Your task to perform on an android device: turn on airplane mode Image 0: 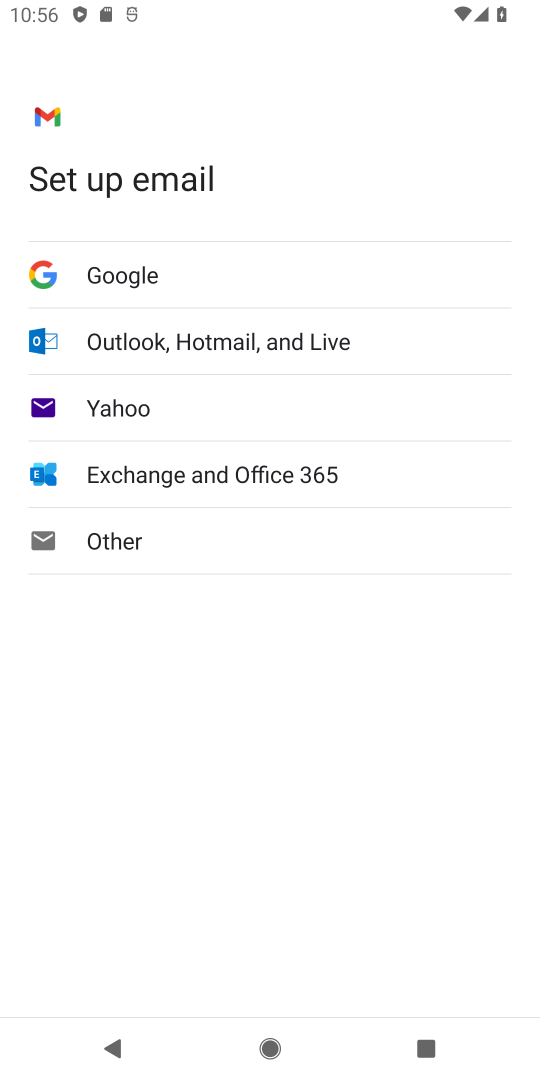
Step 0: press home button
Your task to perform on an android device: turn on airplane mode Image 1: 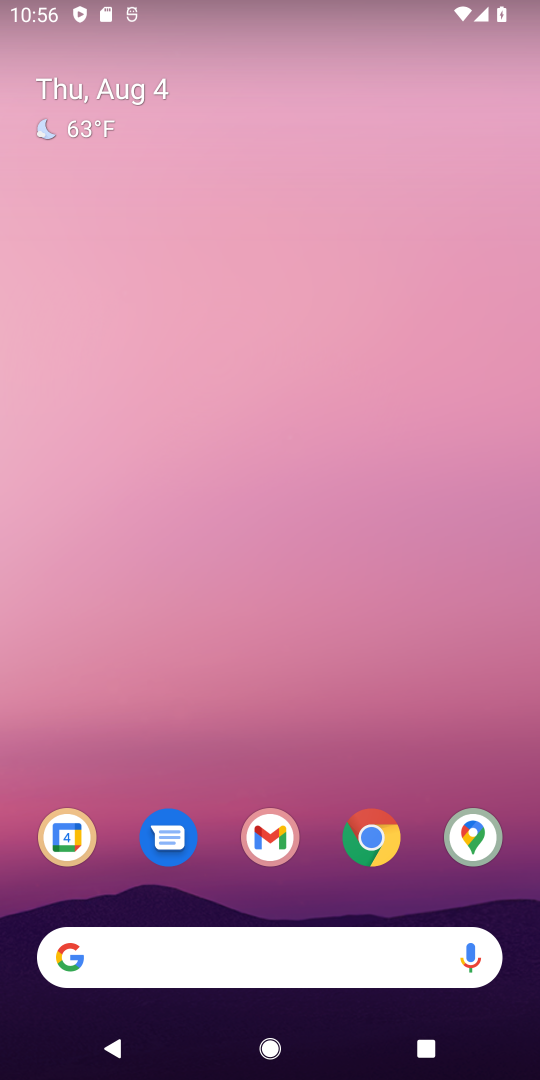
Step 1: drag from (291, 8) to (337, 689)
Your task to perform on an android device: turn on airplane mode Image 2: 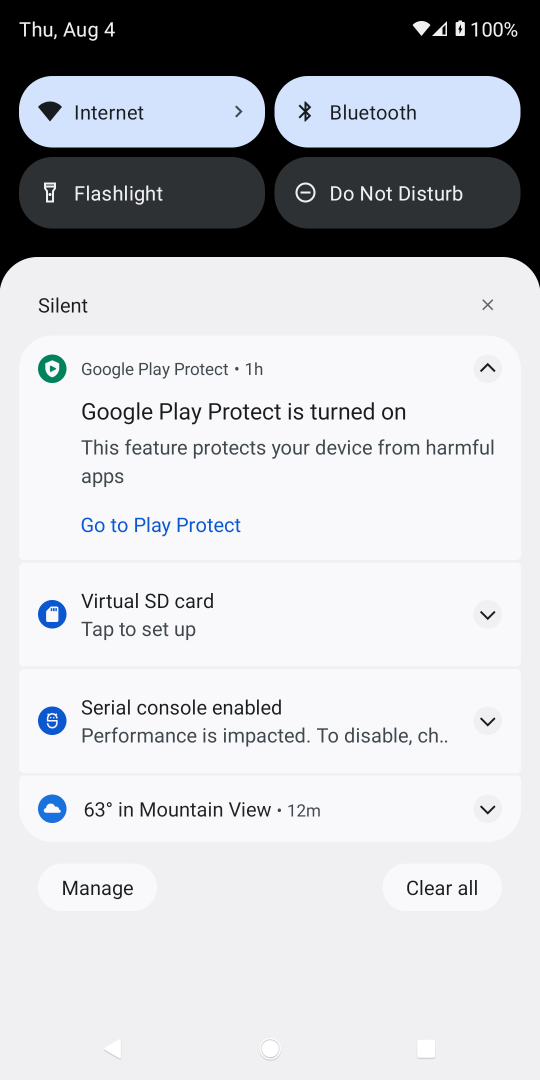
Step 2: drag from (258, 244) to (353, 829)
Your task to perform on an android device: turn on airplane mode Image 3: 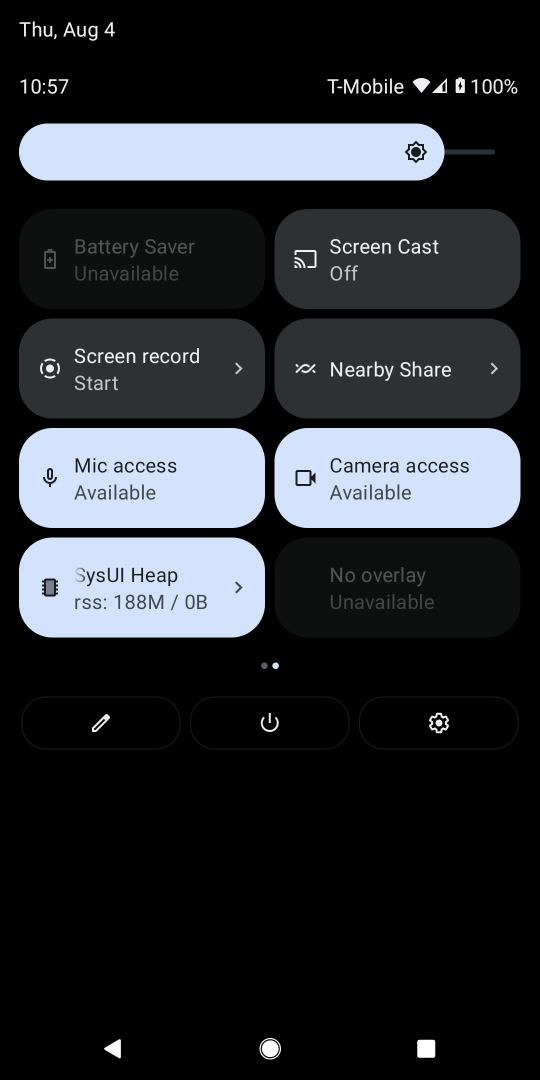
Step 3: drag from (47, 407) to (537, 613)
Your task to perform on an android device: turn on airplane mode Image 4: 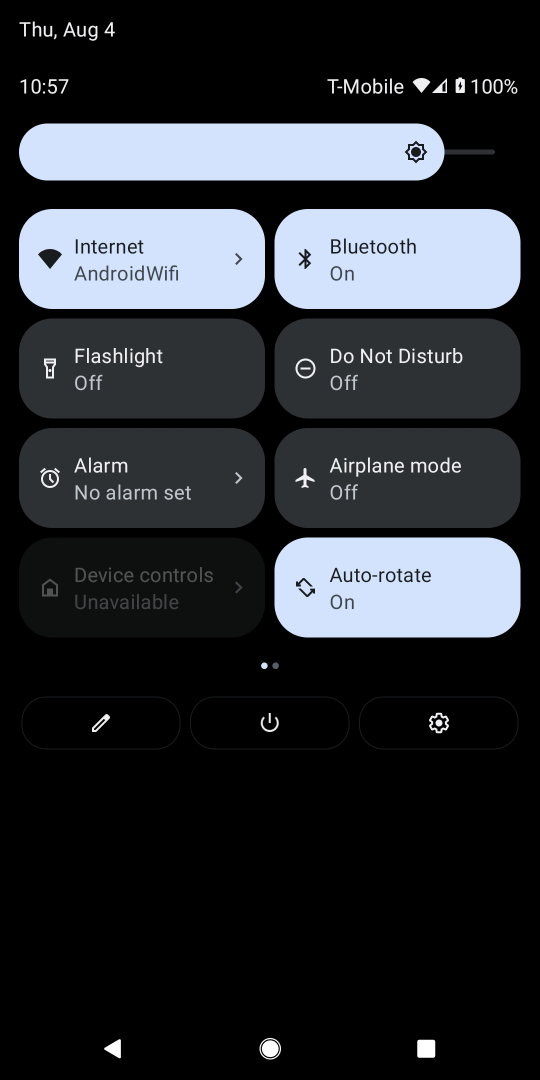
Step 4: click (390, 484)
Your task to perform on an android device: turn on airplane mode Image 5: 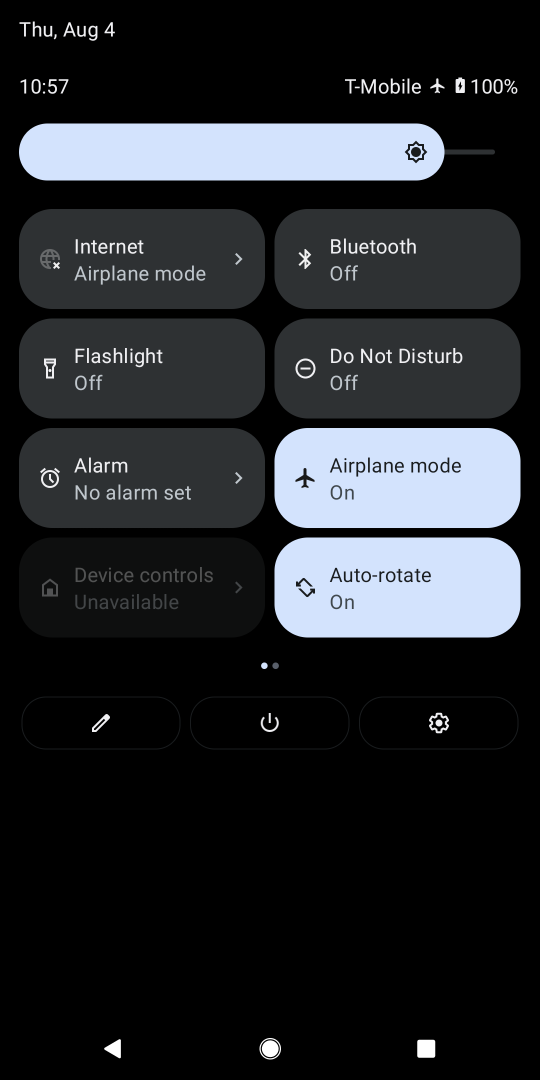
Step 5: task complete